Your task to perform on an android device: change your default location settings in chrome Image 0: 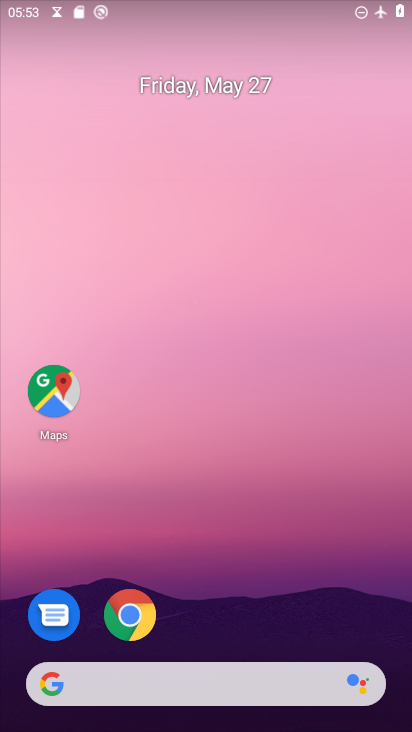
Step 0: drag from (278, 563) to (264, 96)
Your task to perform on an android device: change your default location settings in chrome Image 1: 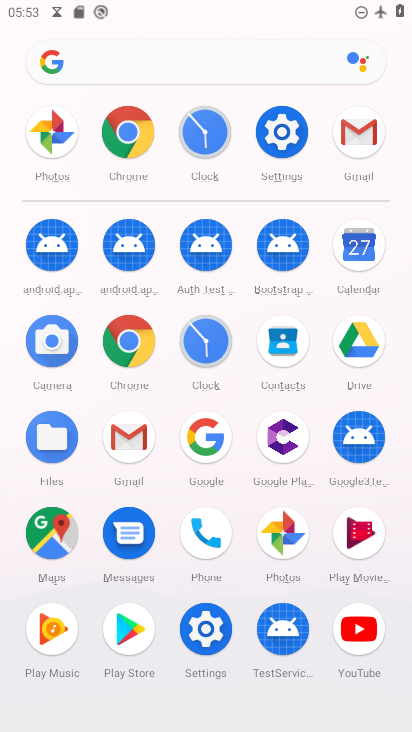
Step 1: click (130, 344)
Your task to perform on an android device: change your default location settings in chrome Image 2: 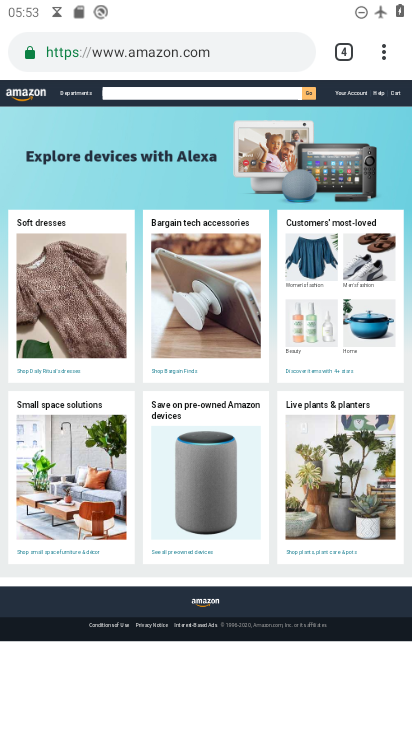
Step 2: click (387, 54)
Your task to perform on an android device: change your default location settings in chrome Image 3: 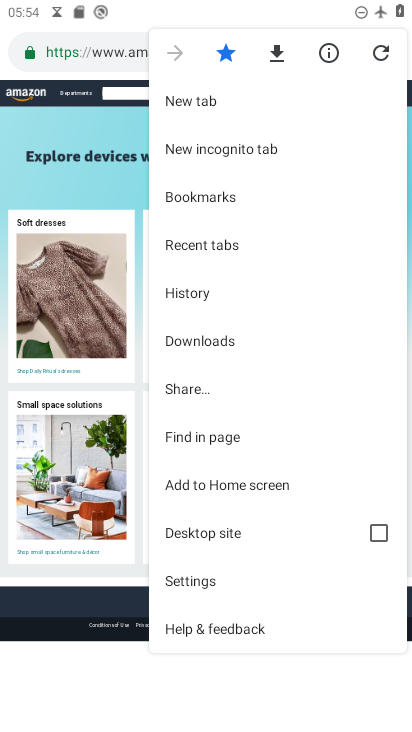
Step 3: click (201, 573)
Your task to perform on an android device: change your default location settings in chrome Image 4: 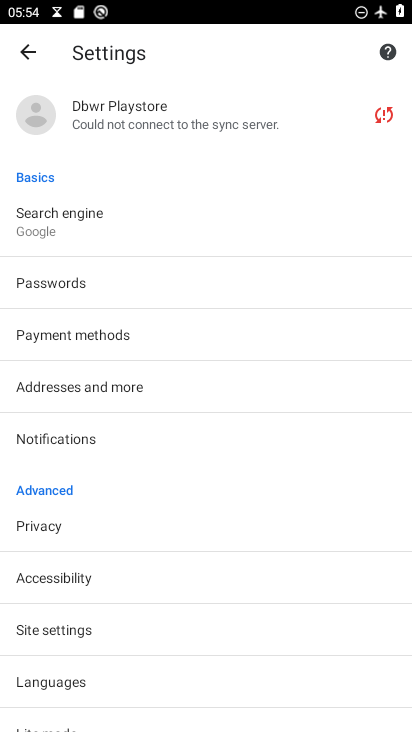
Step 4: click (111, 631)
Your task to perform on an android device: change your default location settings in chrome Image 5: 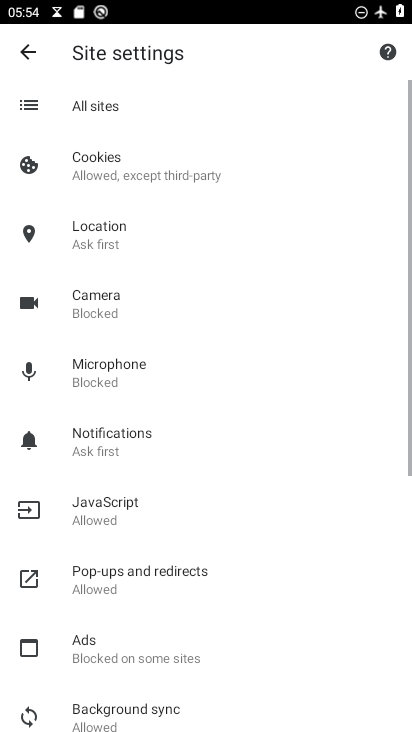
Step 5: click (160, 234)
Your task to perform on an android device: change your default location settings in chrome Image 6: 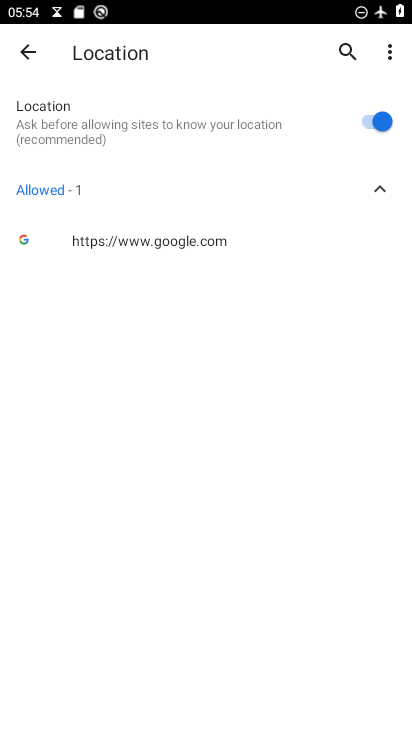
Step 6: click (381, 125)
Your task to perform on an android device: change your default location settings in chrome Image 7: 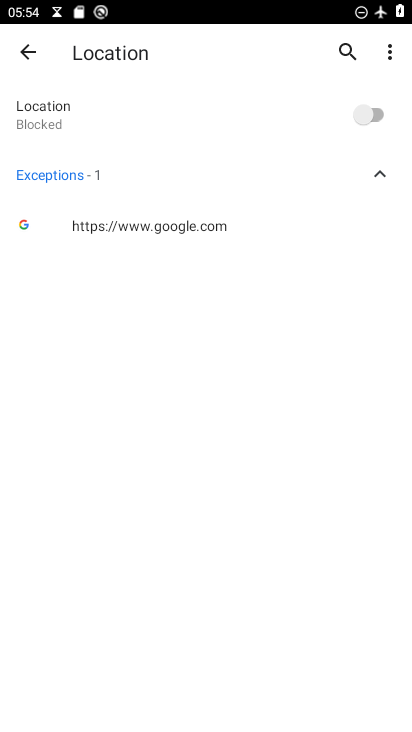
Step 7: task complete